Your task to perform on an android device: Open accessibility settings Image 0: 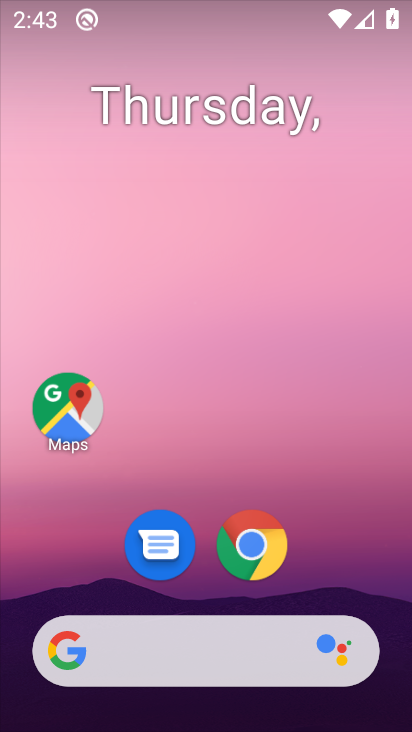
Step 0: drag from (226, 612) to (222, 132)
Your task to perform on an android device: Open accessibility settings Image 1: 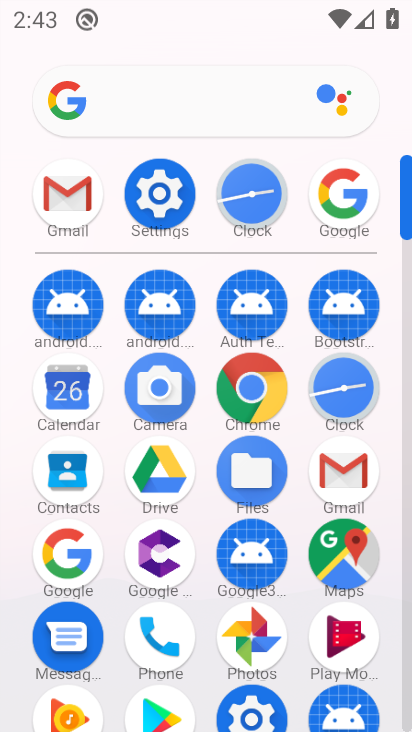
Step 1: click (254, 722)
Your task to perform on an android device: Open accessibility settings Image 2: 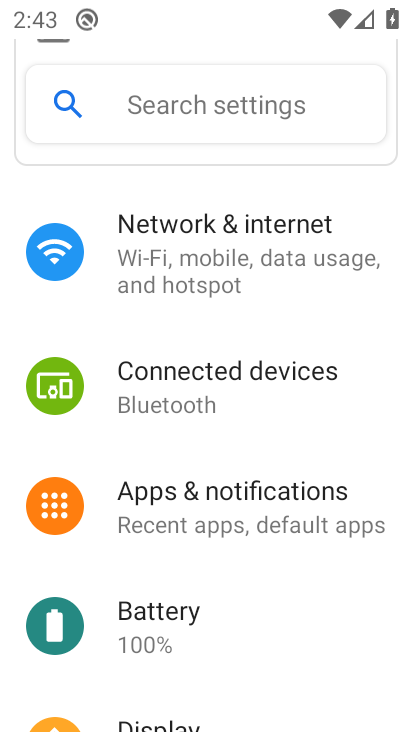
Step 2: drag from (248, 668) to (255, 131)
Your task to perform on an android device: Open accessibility settings Image 3: 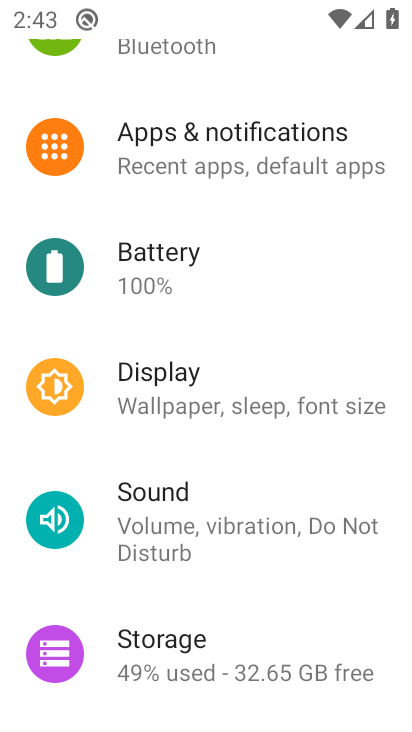
Step 3: drag from (211, 650) to (242, 63)
Your task to perform on an android device: Open accessibility settings Image 4: 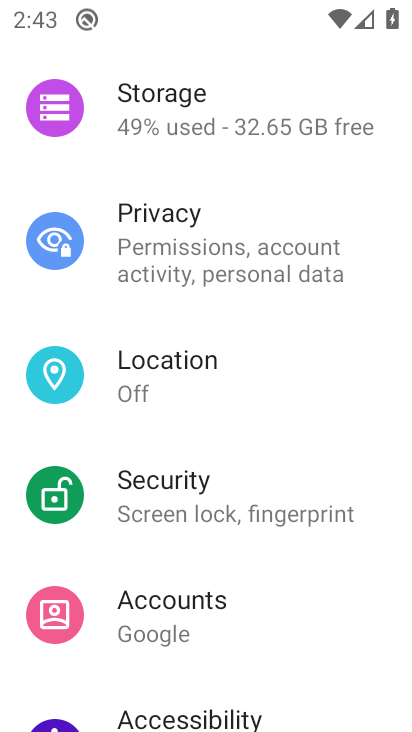
Step 4: drag from (164, 724) to (178, 160)
Your task to perform on an android device: Open accessibility settings Image 5: 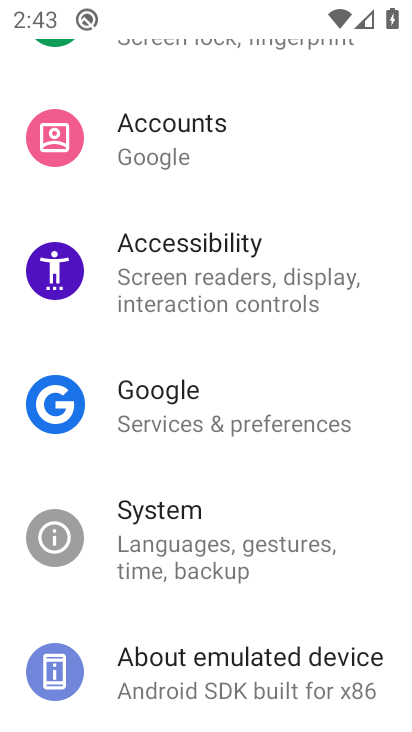
Step 5: click (190, 304)
Your task to perform on an android device: Open accessibility settings Image 6: 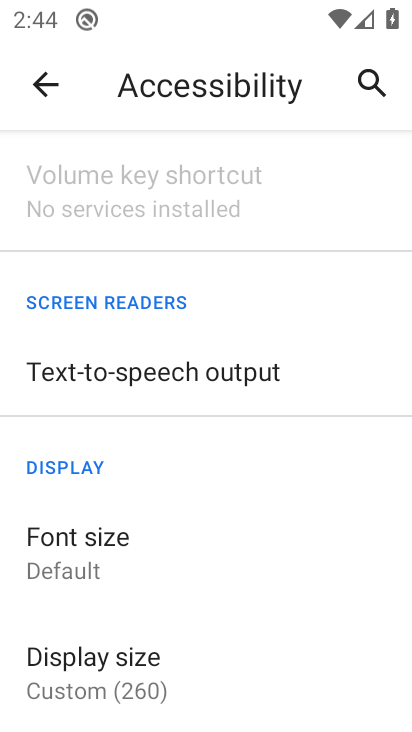
Step 6: task complete